Your task to perform on an android device: toggle notifications settings in the gmail app Image 0: 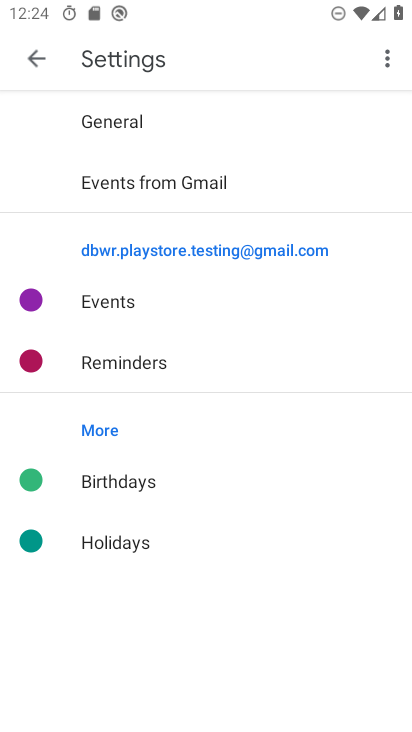
Step 0: press home button
Your task to perform on an android device: toggle notifications settings in the gmail app Image 1: 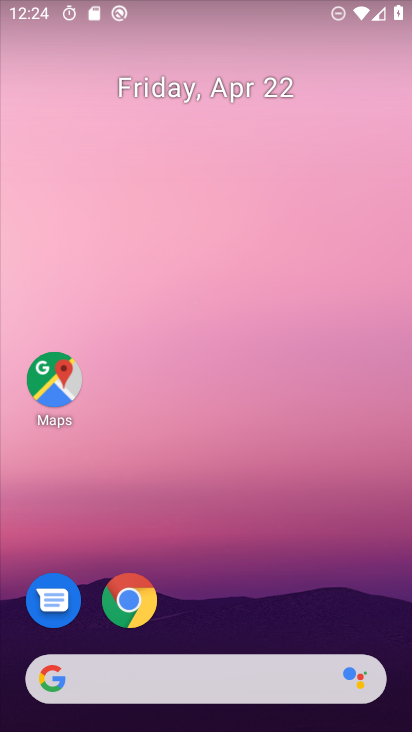
Step 1: drag from (230, 538) to (291, 23)
Your task to perform on an android device: toggle notifications settings in the gmail app Image 2: 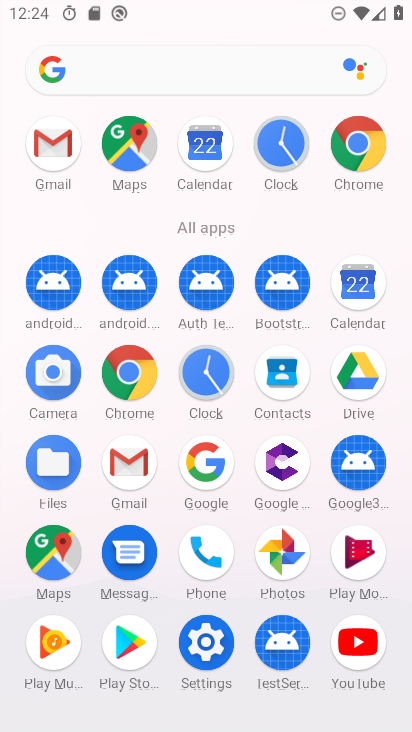
Step 2: click (54, 142)
Your task to perform on an android device: toggle notifications settings in the gmail app Image 3: 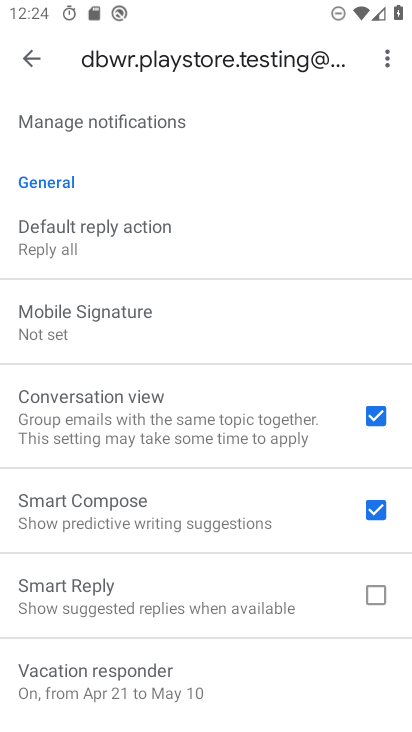
Step 3: click (179, 126)
Your task to perform on an android device: toggle notifications settings in the gmail app Image 4: 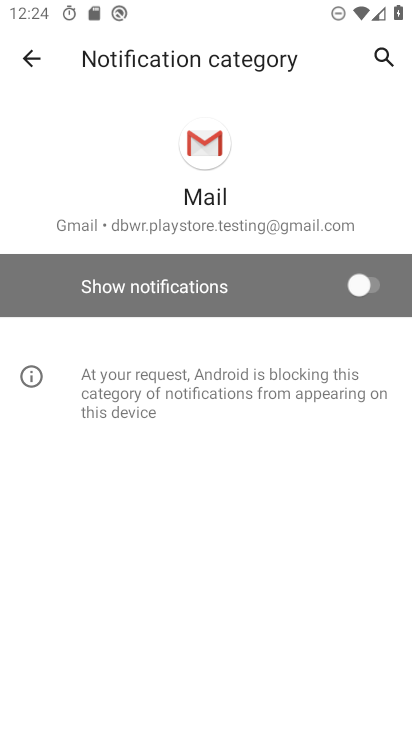
Step 4: click (362, 293)
Your task to perform on an android device: toggle notifications settings in the gmail app Image 5: 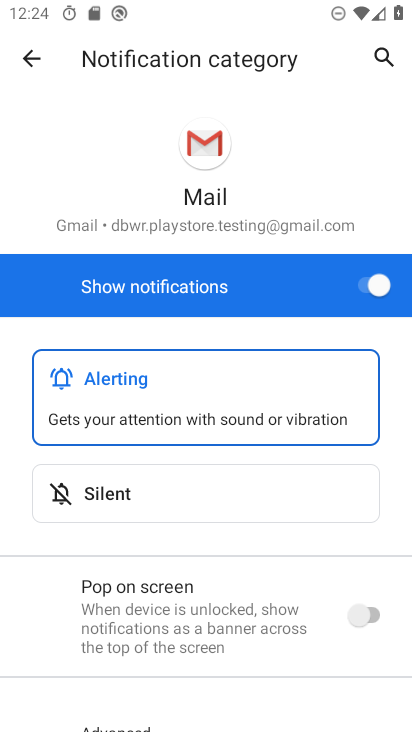
Step 5: task complete